Your task to perform on an android device: Go to ESPN.com Image 0: 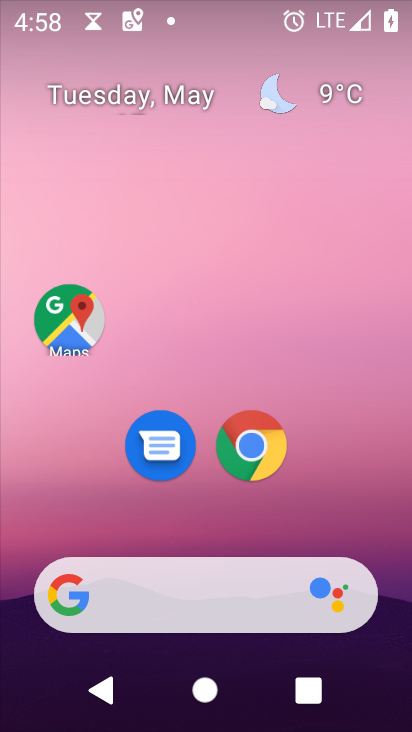
Step 0: drag from (282, 576) to (380, 4)
Your task to perform on an android device: Go to ESPN.com Image 1: 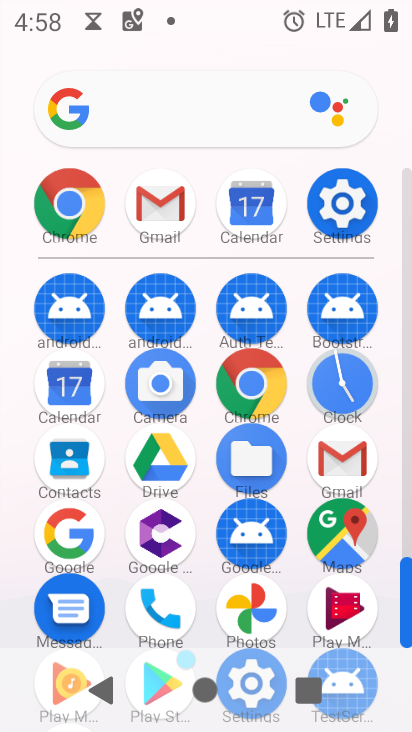
Step 1: click (258, 384)
Your task to perform on an android device: Go to ESPN.com Image 2: 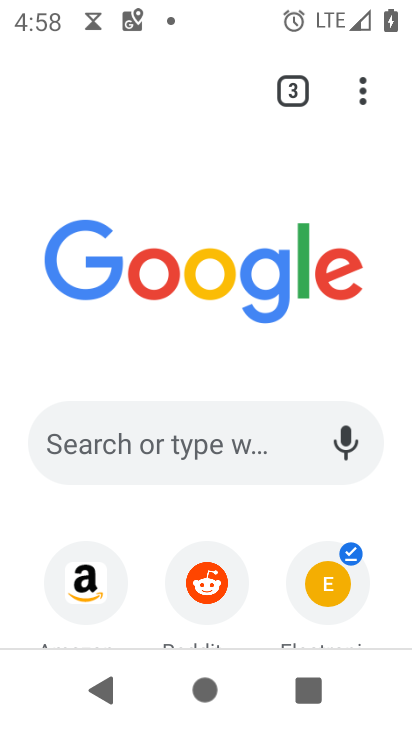
Step 2: click (200, 440)
Your task to perform on an android device: Go to ESPN.com Image 3: 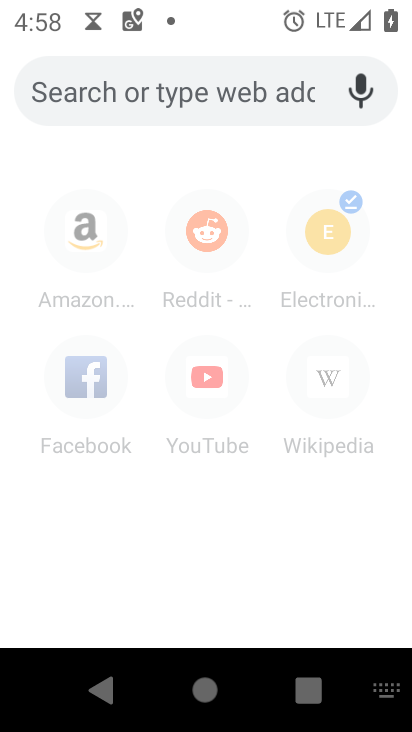
Step 3: press back button
Your task to perform on an android device: Go to ESPN.com Image 4: 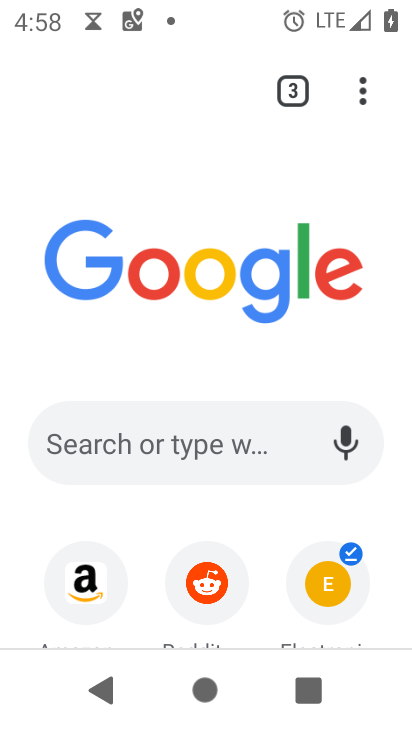
Step 4: drag from (301, 531) to (312, 72)
Your task to perform on an android device: Go to ESPN.com Image 5: 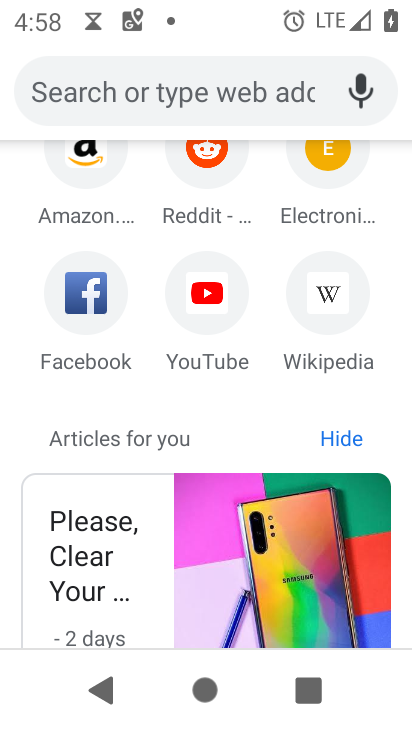
Step 5: click (319, 156)
Your task to perform on an android device: Go to ESPN.com Image 6: 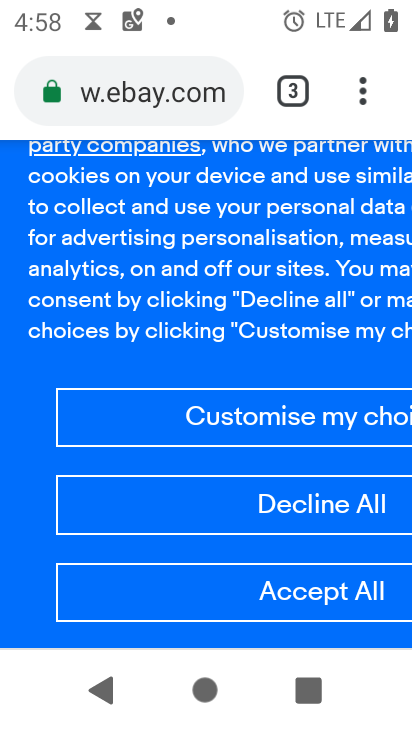
Step 6: press back button
Your task to perform on an android device: Go to ESPN.com Image 7: 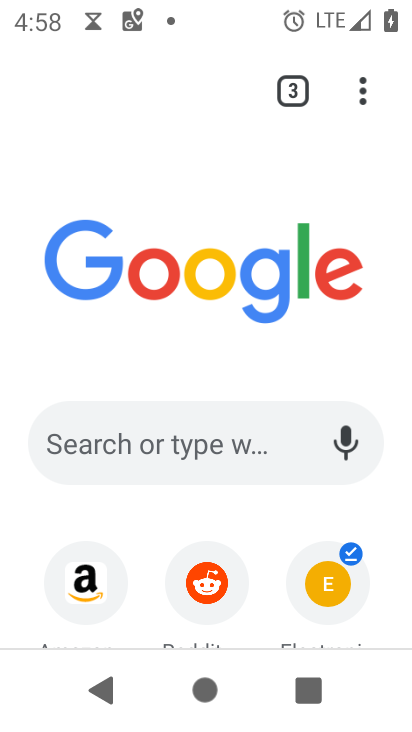
Step 7: click (196, 106)
Your task to perform on an android device: Go to ESPN.com Image 8: 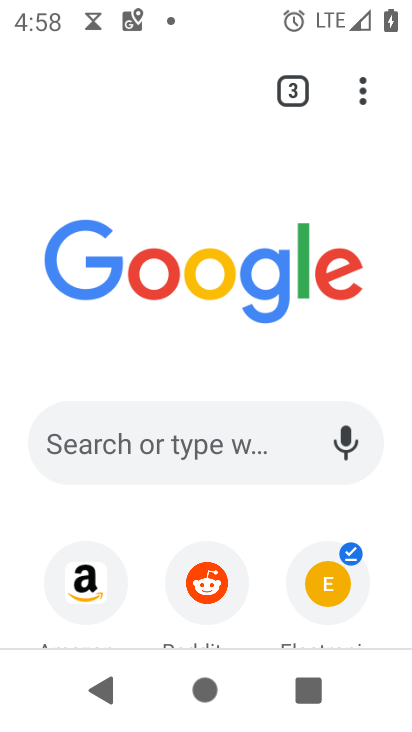
Step 8: click (254, 444)
Your task to perform on an android device: Go to ESPN.com Image 9: 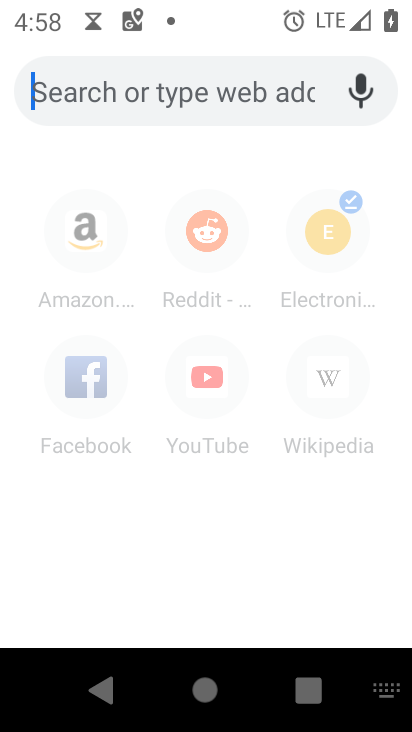
Step 9: type "espn.com"
Your task to perform on an android device: Go to ESPN.com Image 10: 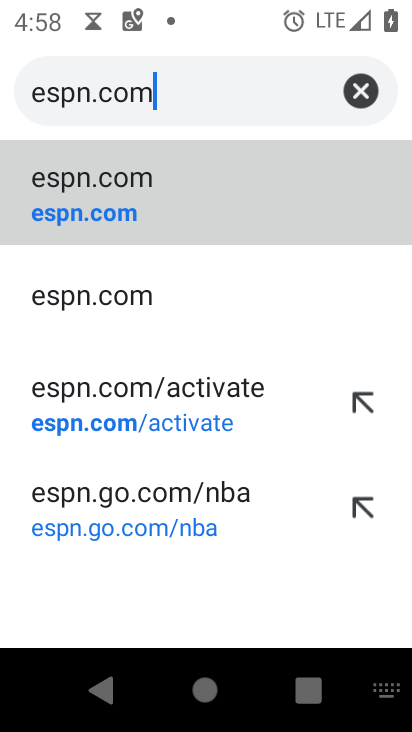
Step 10: click (208, 225)
Your task to perform on an android device: Go to ESPN.com Image 11: 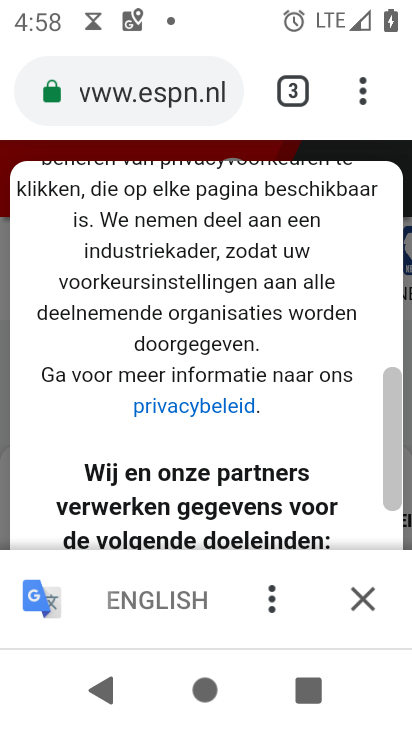
Step 11: task complete